Your task to perform on an android device: set an alarm Image 0: 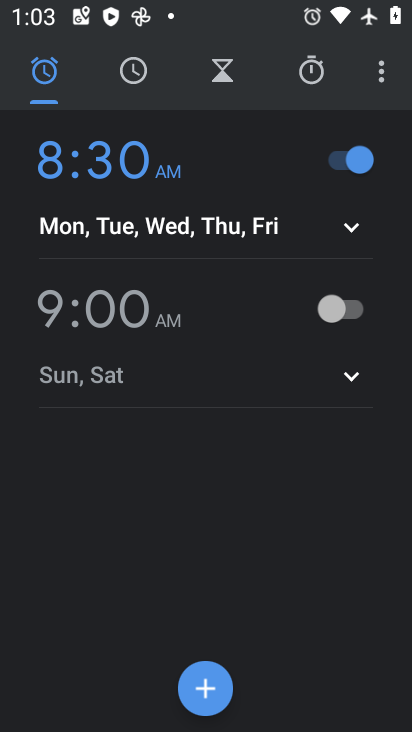
Step 0: press home button
Your task to perform on an android device: set an alarm Image 1: 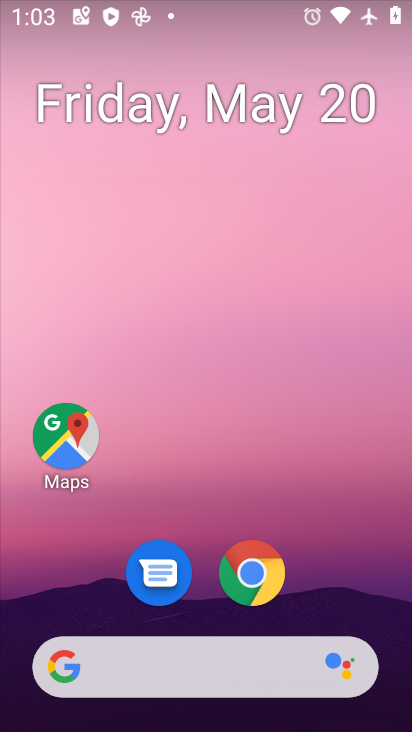
Step 1: drag from (322, 572) to (311, 121)
Your task to perform on an android device: set an alarm Image 2: 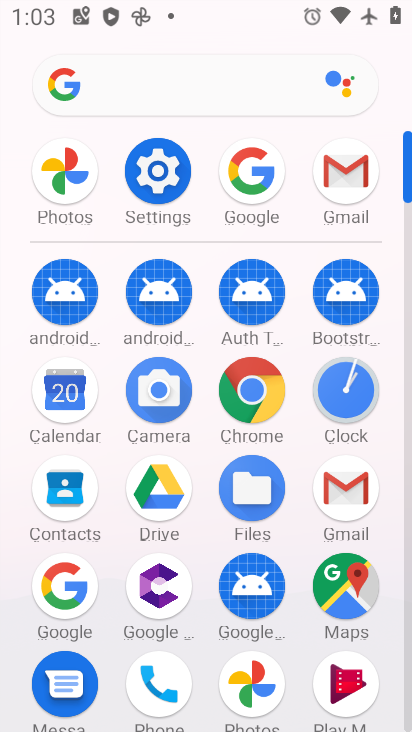
Step 2: click (347, 391)
Your task to perform on an android device: set an alarm Image 3: 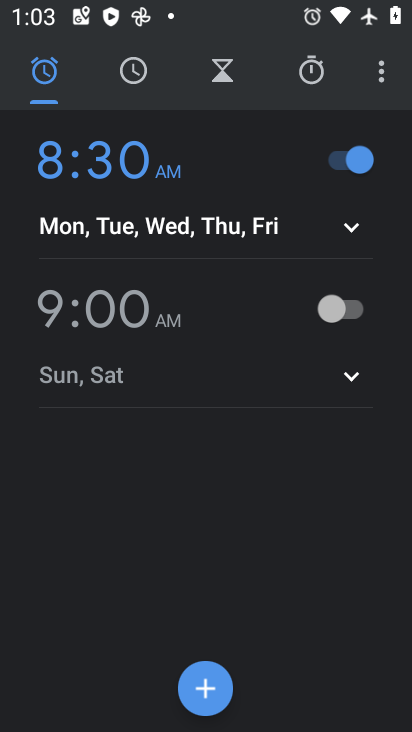
Step 3: click (349, 293)
Your task to perform on an android device: set an alarm Image 4: 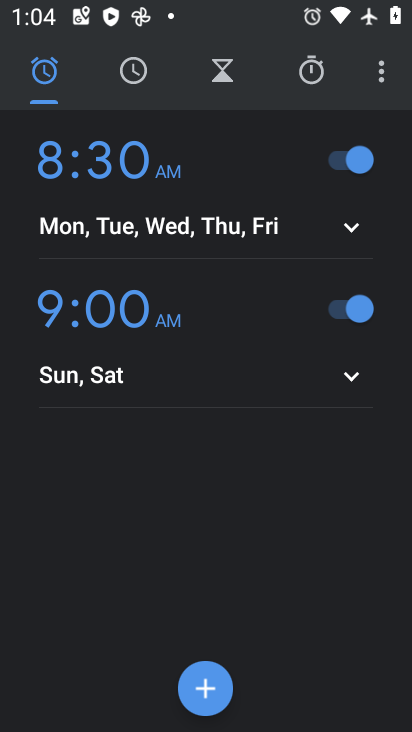
Step 4: task complete